Your task to perform on an android device: What is the recent news? Image 0: 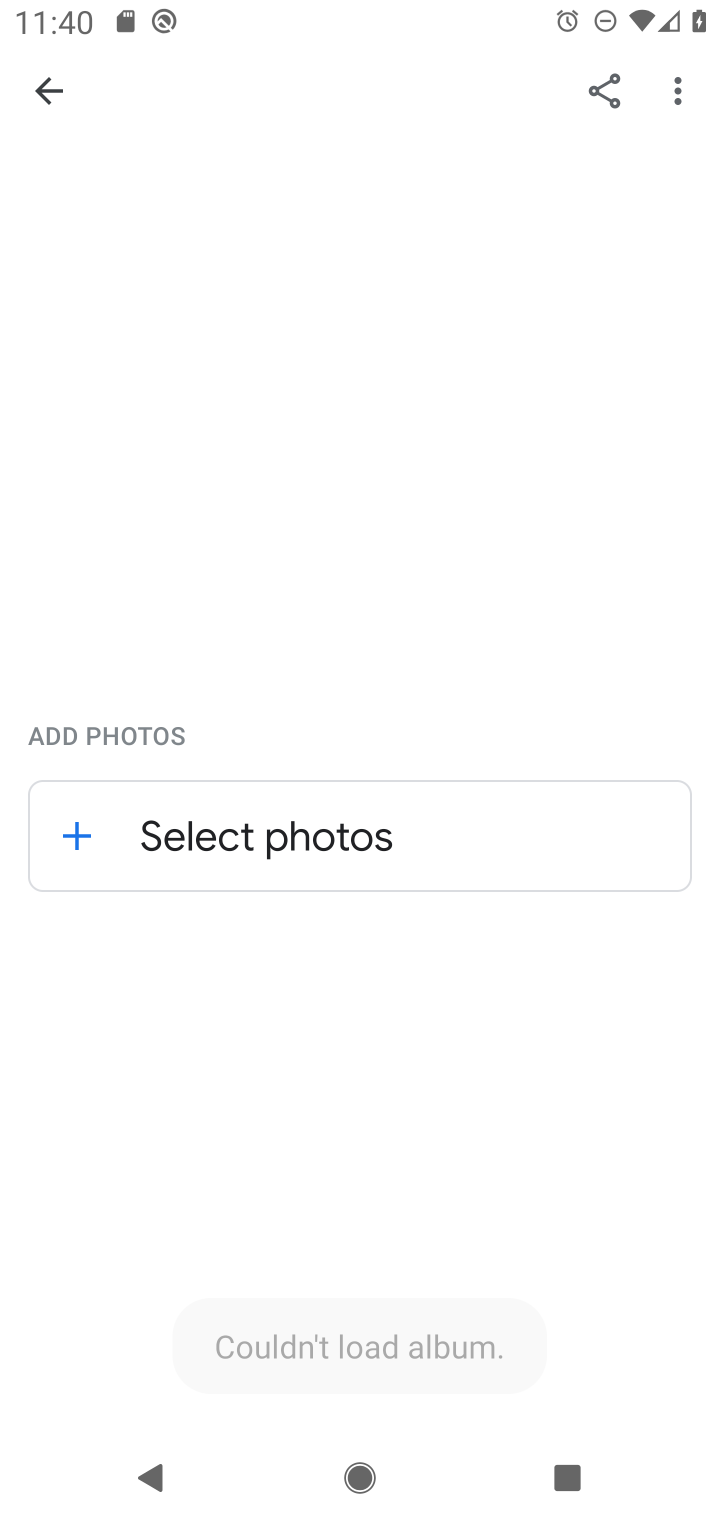
Step 0: press home button
Your task to perform on an android device: What is the recent news? Image 1: 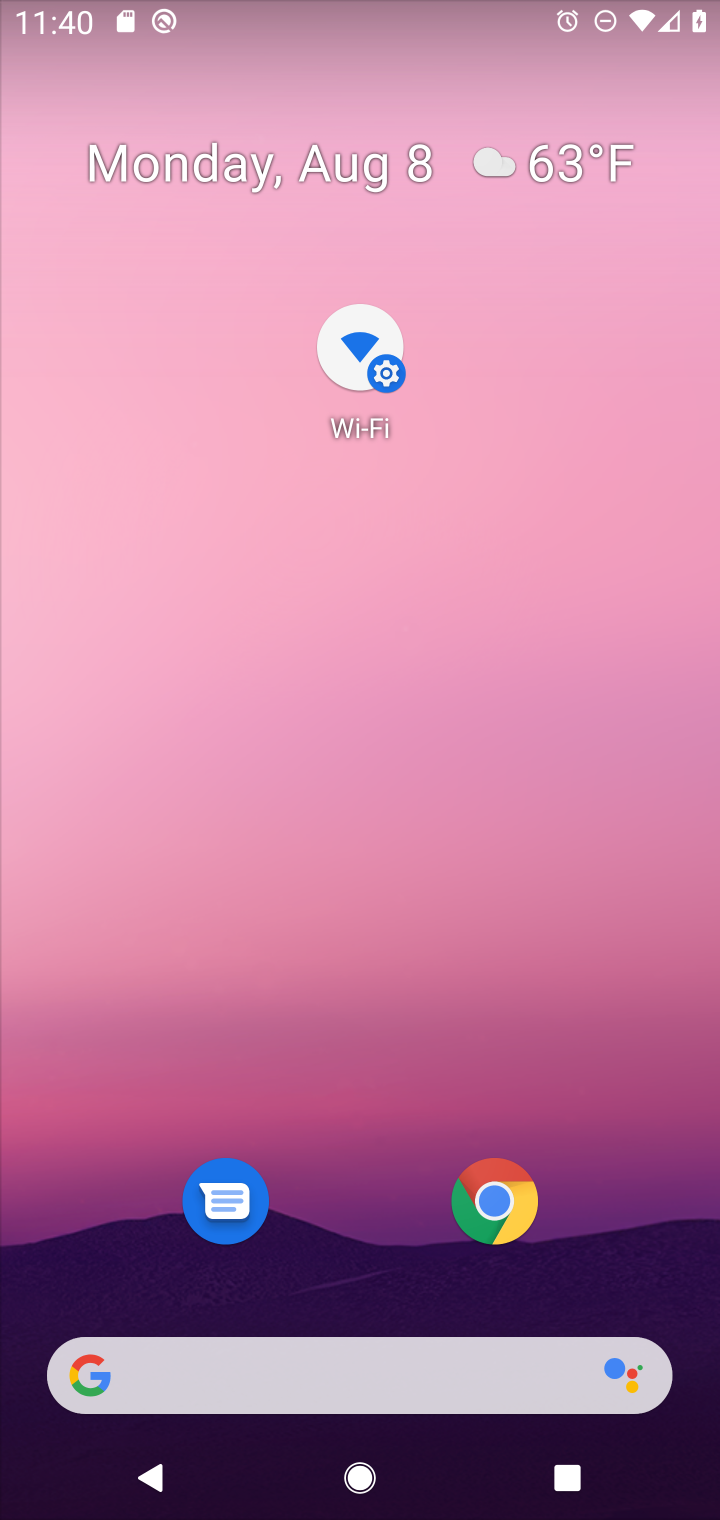
Step 1: drag from (160, 519) to (719, 656)
Your task to perform on an android device: What is the recent news? Image 2: 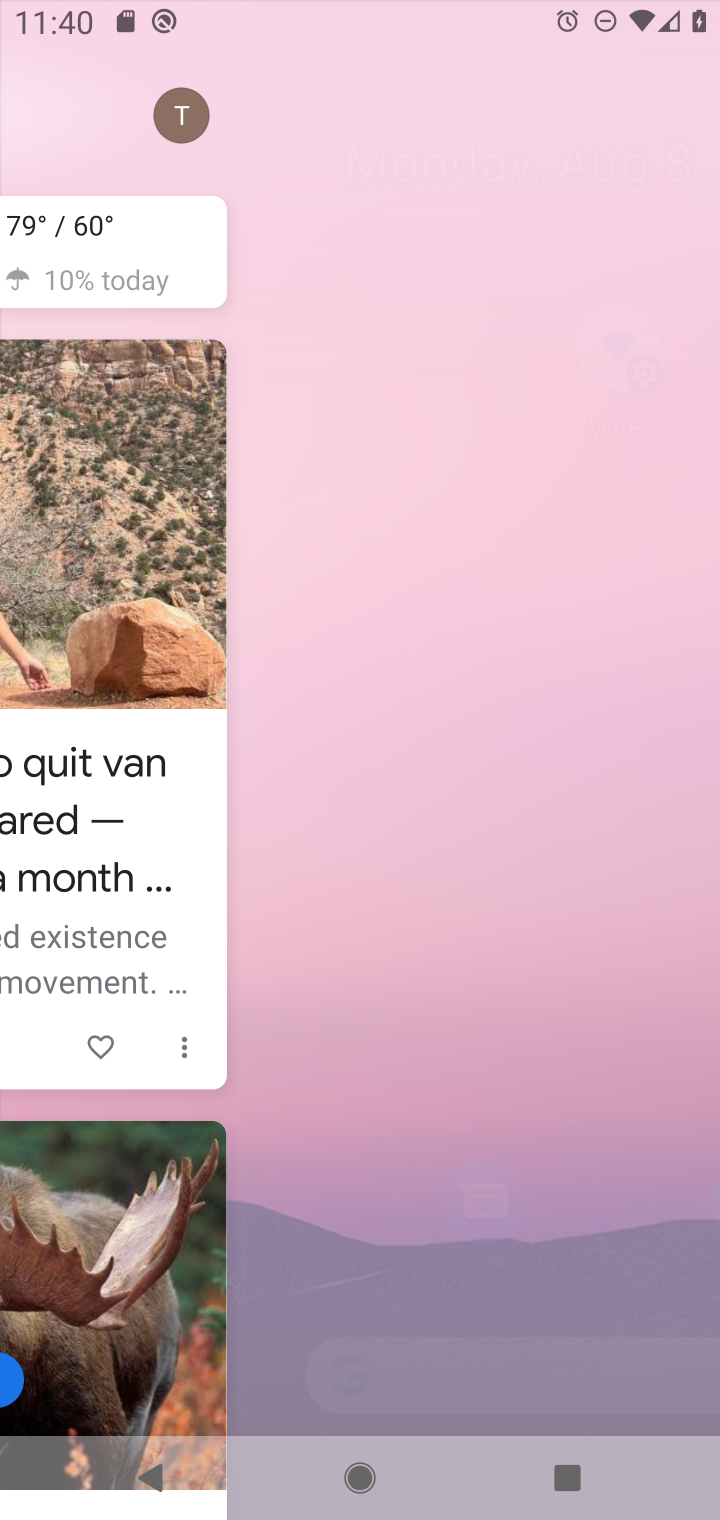
Step 2: drag from (465, 663) to (655, 732)
Your task to perform on an android device: What is the recent news? Image 3: 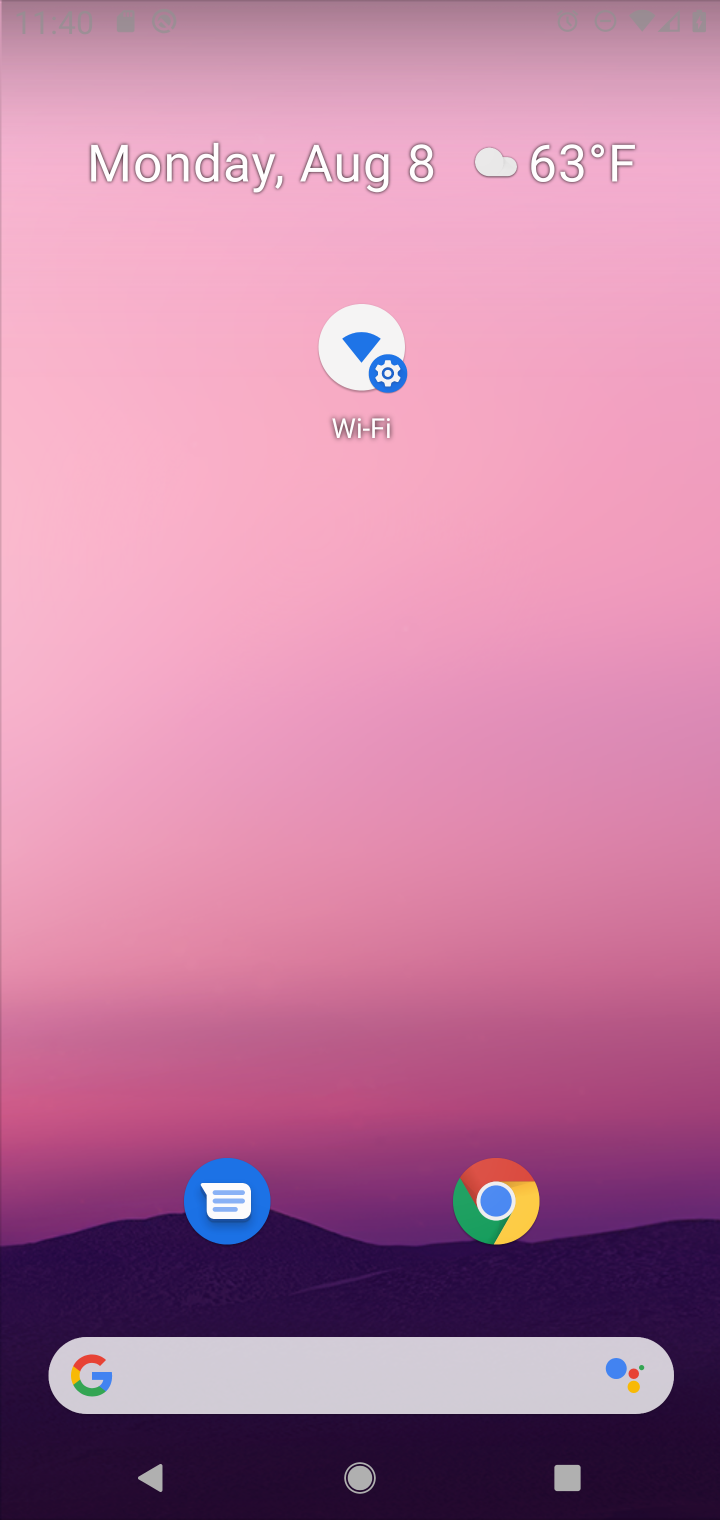
Step 3: drag from (121, 585) to (715, 679)
Your task to perform on an android device: What is the recent news? Image 4: 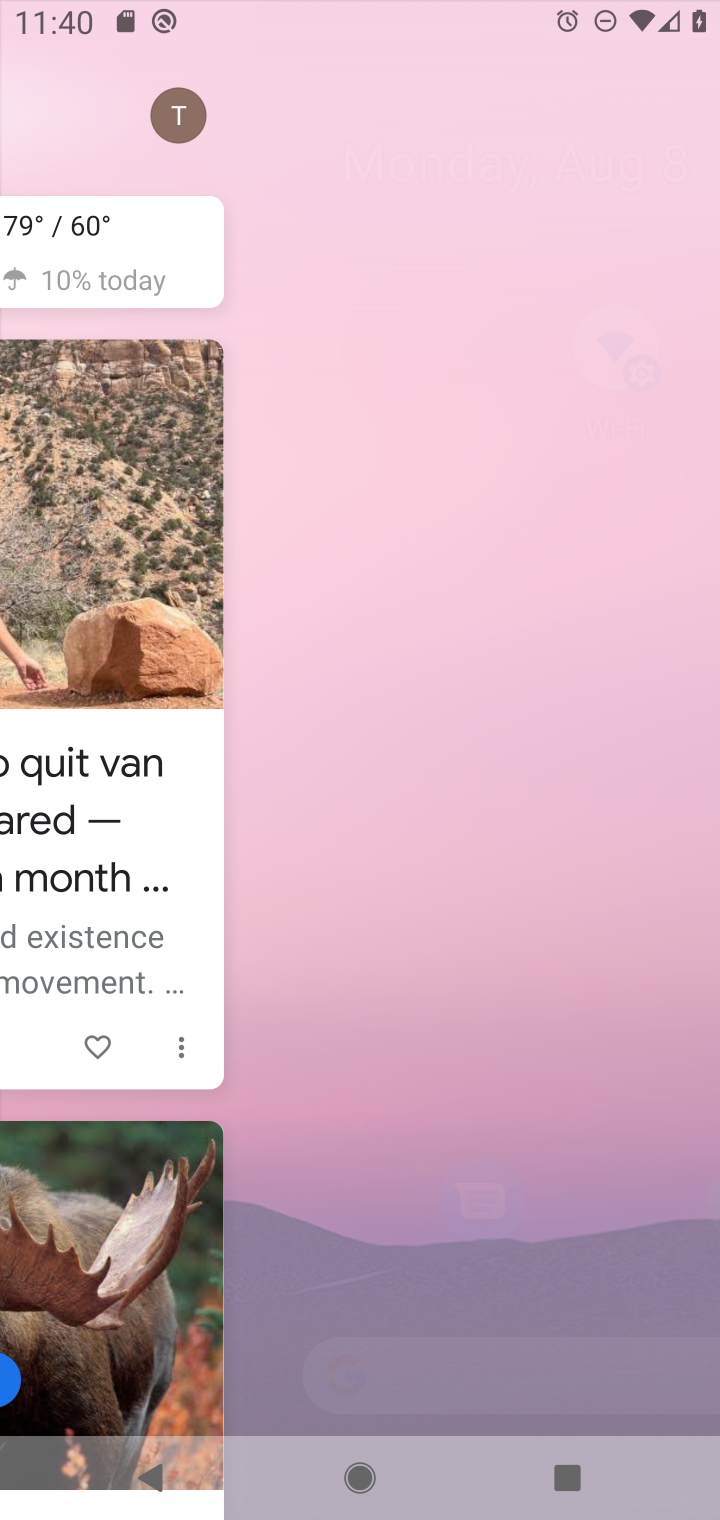
Step 4: click (696, 726)
Your task to perform on an android device: What is the recent news? Image 5: 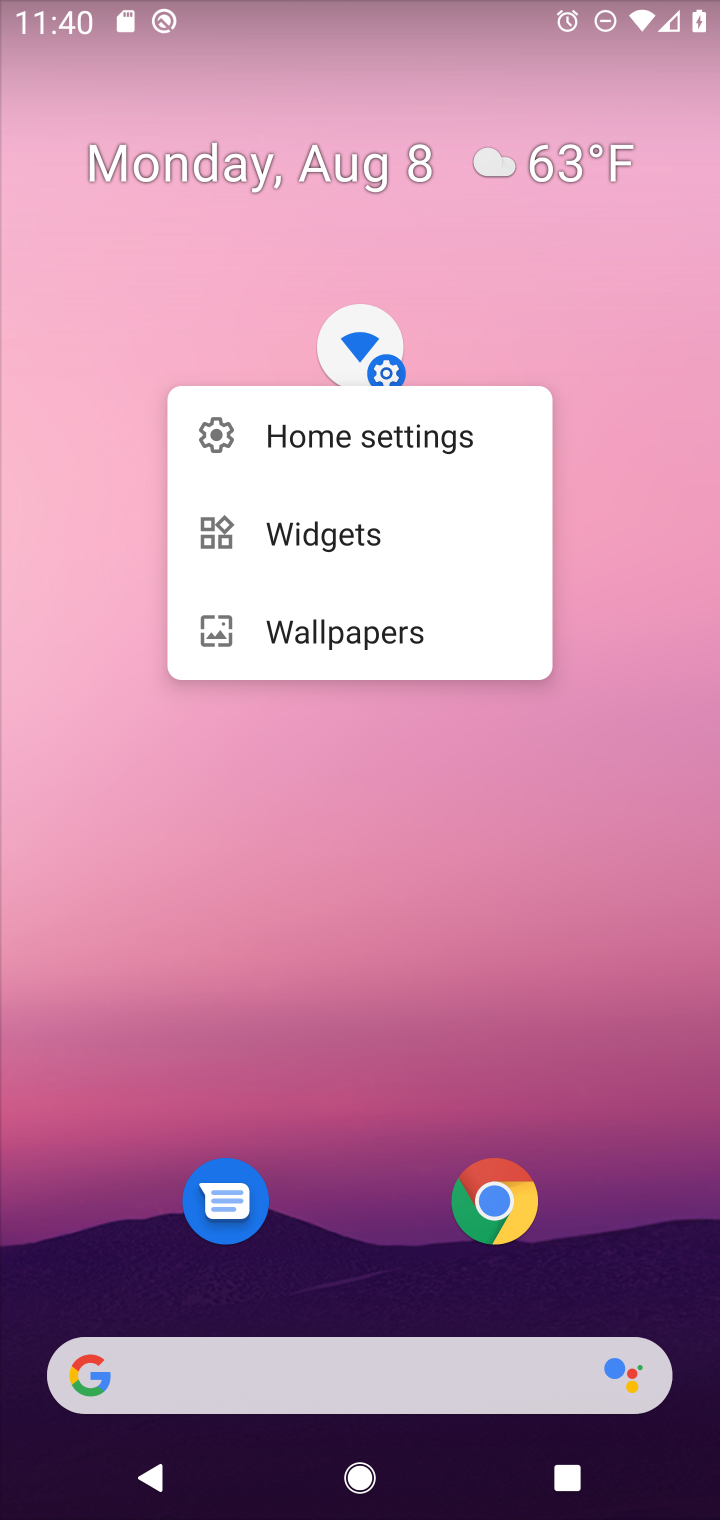
Step 5: click (209, 837)
Your task to perform on an android device: What is the recent news? Image 6: 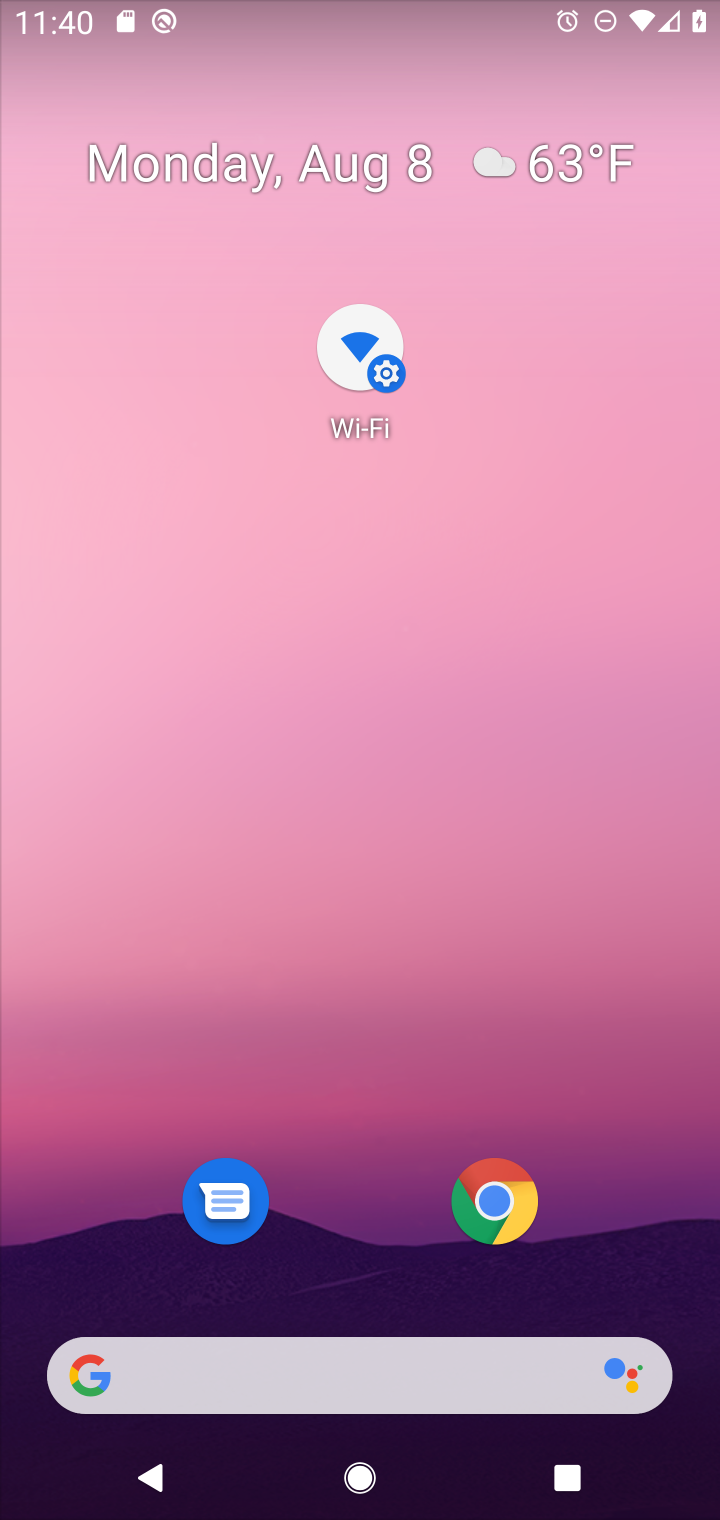
Step 6: task complete